Your task to perform on an android device: Show me productivity apps on the Play Store Image 0: 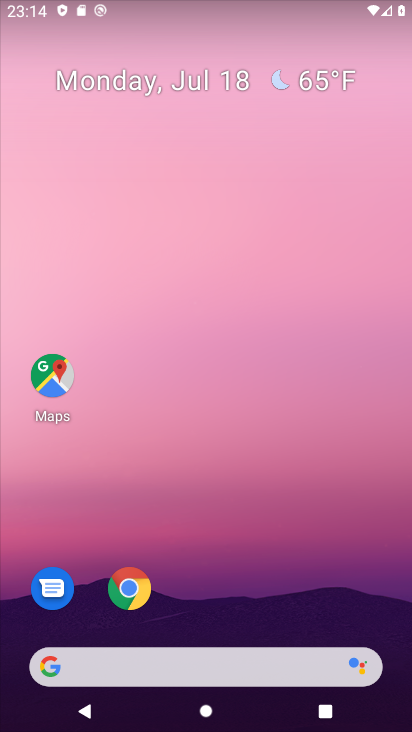
Step 0: press home button
Your task to perform on an android device: Show me productivity apps on the Play Store Image 1: 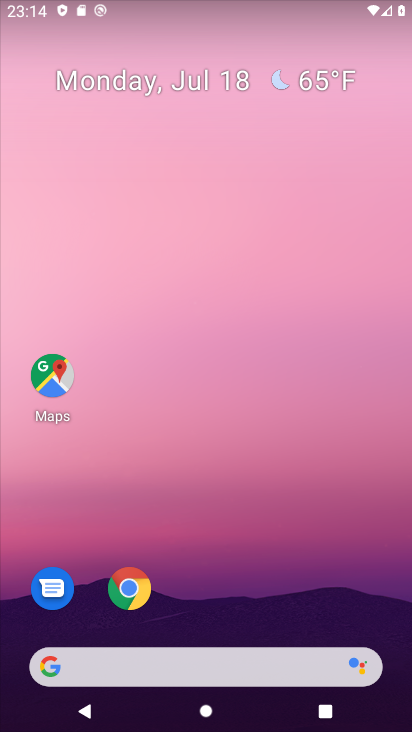
Step 1: drag from (258, 575) to (269, 260)
Your task to perform on an android device: Show me productivity apps on the Play Store Image 2: 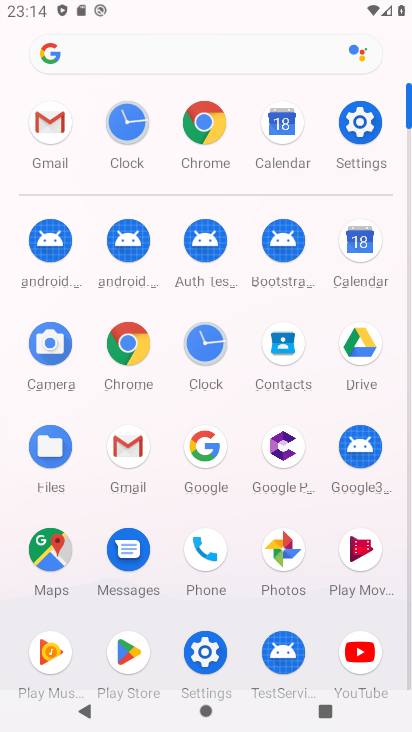
Step 2: click (140, 647)
Your task to perform on an android device: Show me productivity apps on the Play Store Image 3: 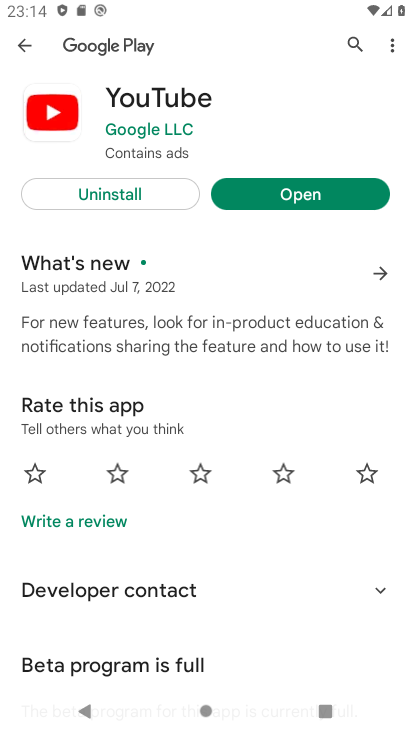
Step 3: click (22, 45)
Your task to perform on an android device: Show me productivity apps on the Play Store Image 4: 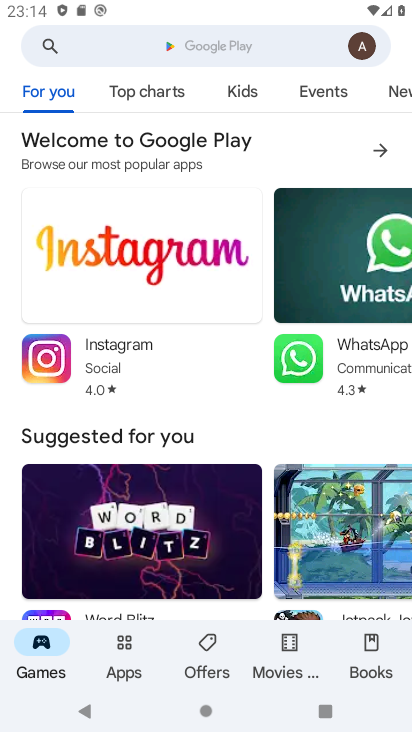
Step 4: click (121, 649)
Your task to perform on an android device: Show me productivity apps on the Play Store Image 5: 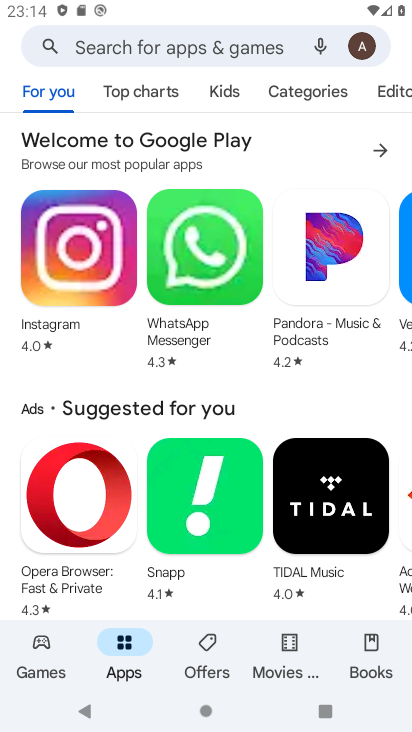
Step 5: click (335, 87)
Your task to perform on an android device: Show me productivity apps on the Play Store Image 6: 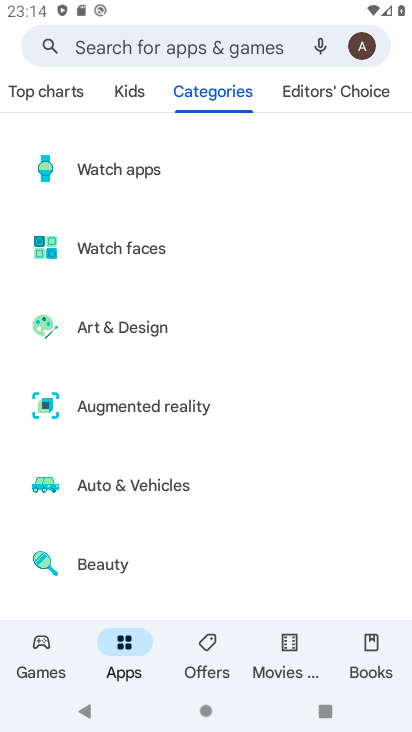
Step 6: drag from (261, 561) to (263, 187)
Your task to perform on an android device: Show me productivity apps on the Play Store Image 7: 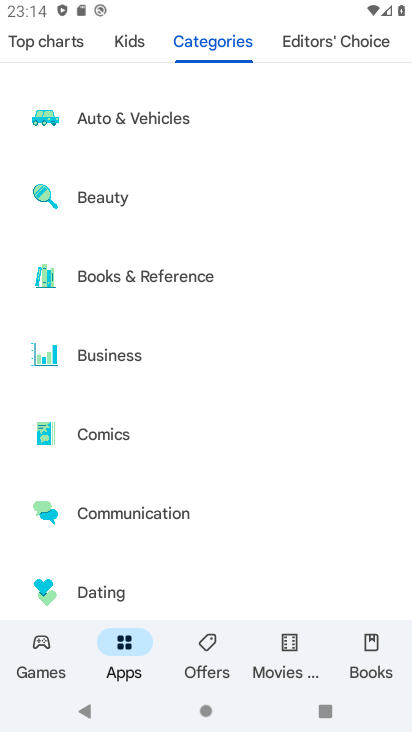
Step 7: drag from (206, 575) to (259, 144)
Your task to perform on an android device: Show me productivity apps on the Play Store Image 8: 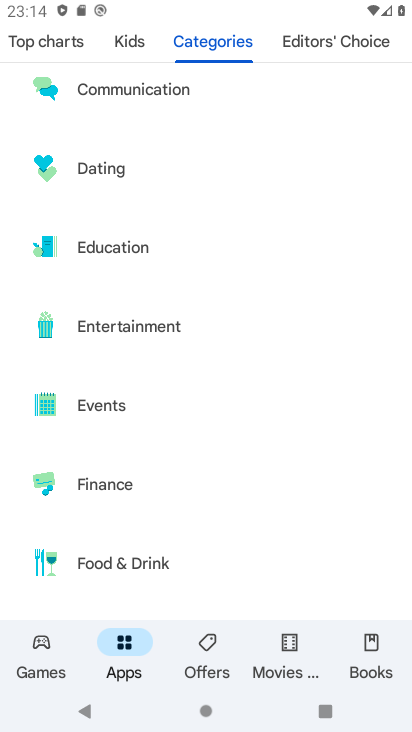
Step 8: drag from (214, 561) to (241, 123)
Your task to perform on an android device: Show me productivity apps on the Play Store Image 9: 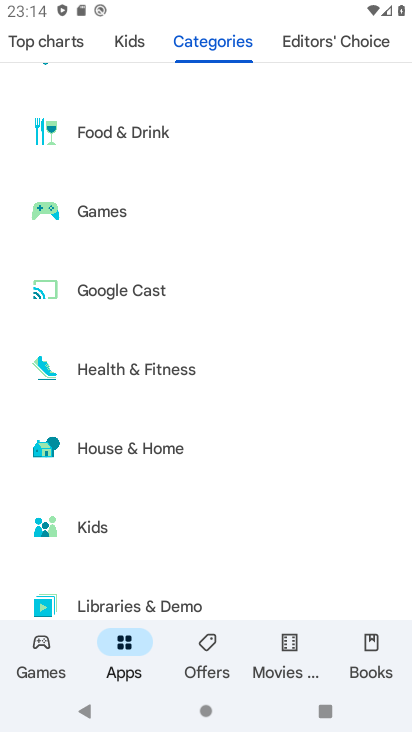
Step 9: drag from (210, 553) to (258, 92)
Your task to perform on an android device: Show me productivity apps on the Play Store Image 10: 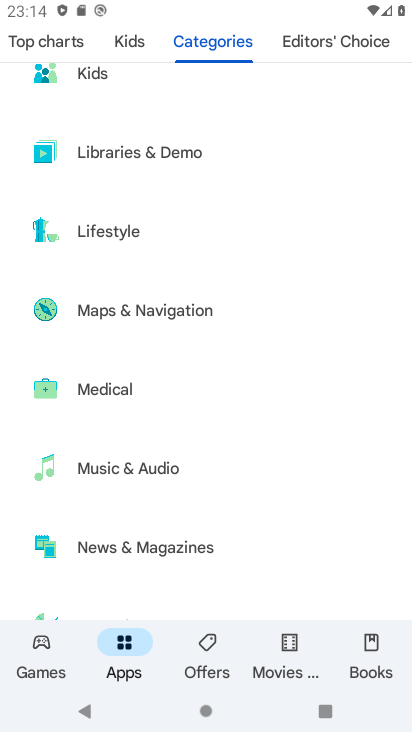
Step 10: drag from (209, 571) to (283, 61)
Your task to perform on an android device: Show me productivity apps on the Play Store Image 11: 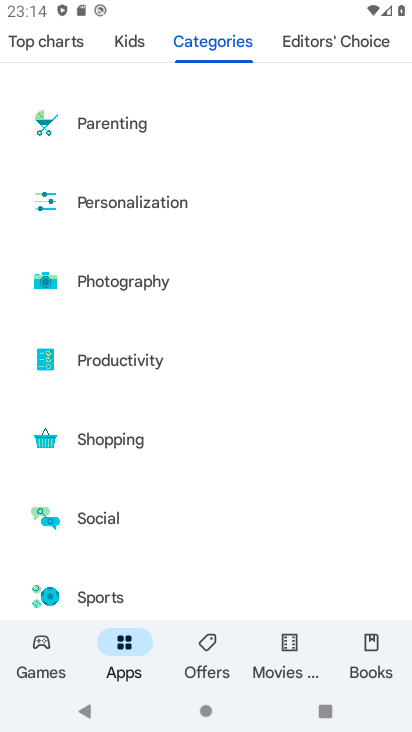
Step 11: click (144, 360)
Your task to perform on an android device: Show me productivity apps on the Play Store Image 12: 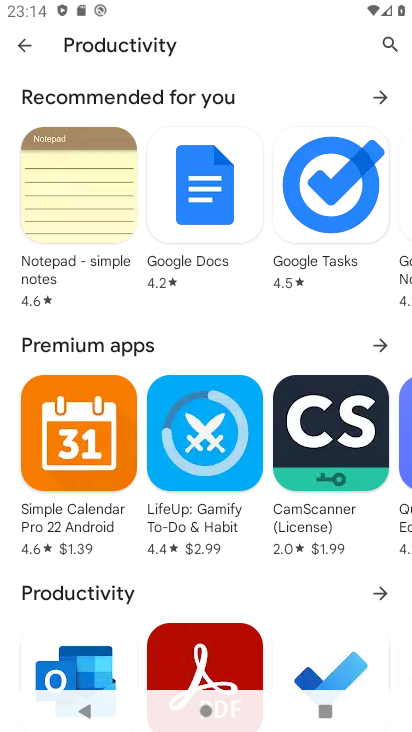
Step 12: click (373, 591)
Your task to perform on an android device: Show me productivity apps on the Play Store Image 13: 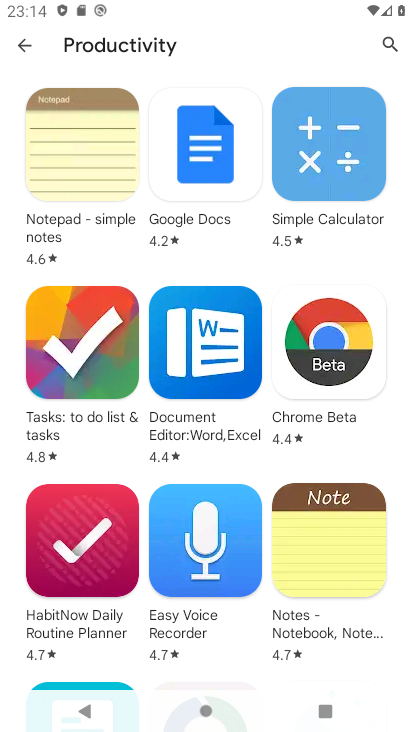
Step 13: task complete